Your task to perform on an android device: Open CNN.com Image 0: 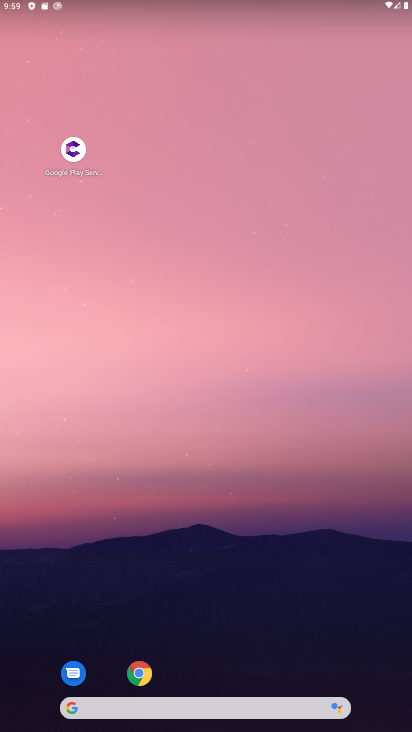
Step 0: click (209, 702)
Your task to perform on an android device: Open CNN.com Image 1: 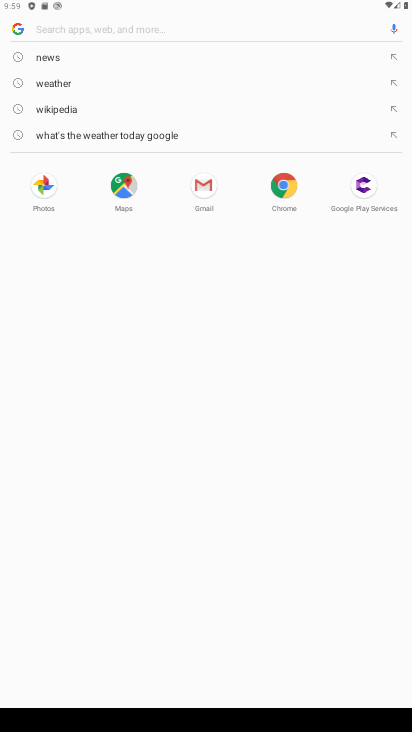
Step 1: type "CNN.com"
Your task to perform on an android device: Open CNN.com Image 2: 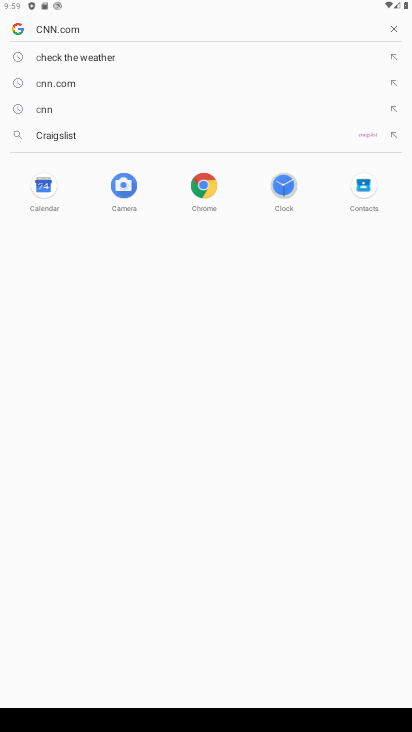
Step 2: press enter
Your task to perform on an android device: Open CNN.com Image 3: 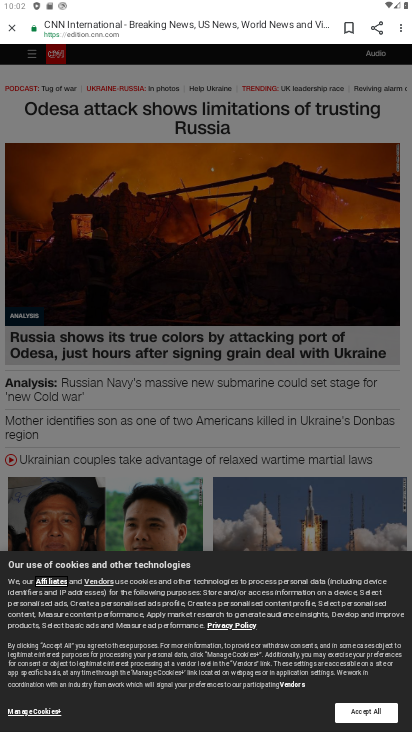
Step 3: press home button
Your task to perform on an android device: Open CNN.com Image 4: 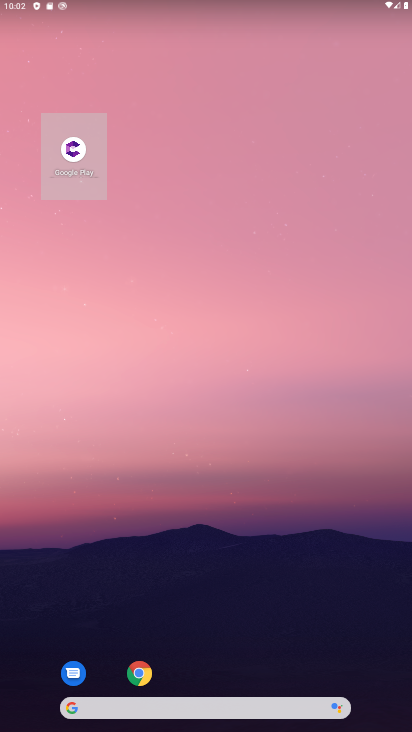
Step 4: click (236, 697)
Your task to perform on an android device: Open CNN.com Image 5: 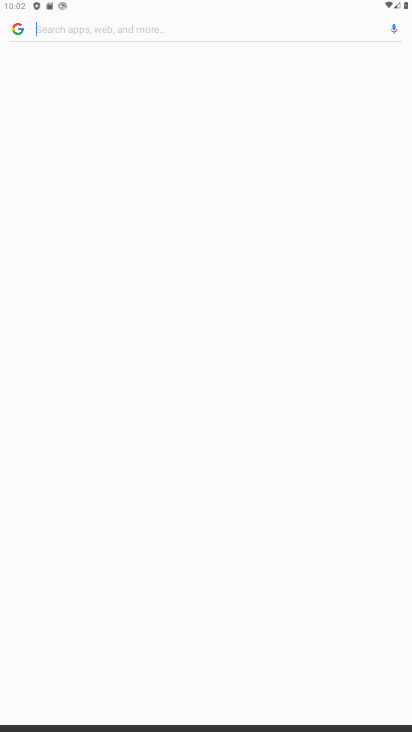
Step 5: click (233, 703)
Your task to perform on an android device: Open CNN.com Image 6: 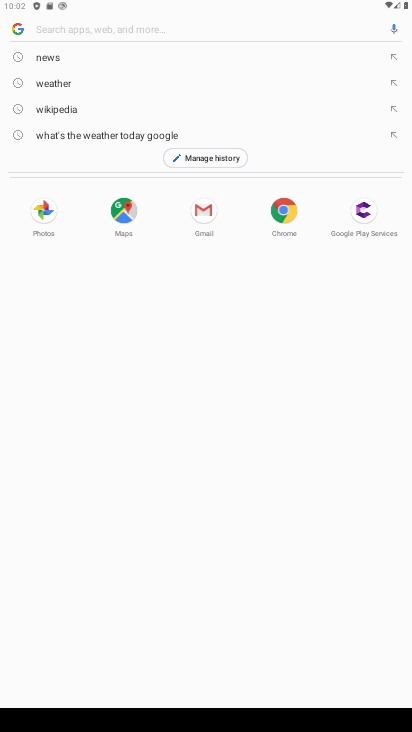
Step 6: type " CNN.com"
Your task to perform on an android device: Open CNN.com Image 7: 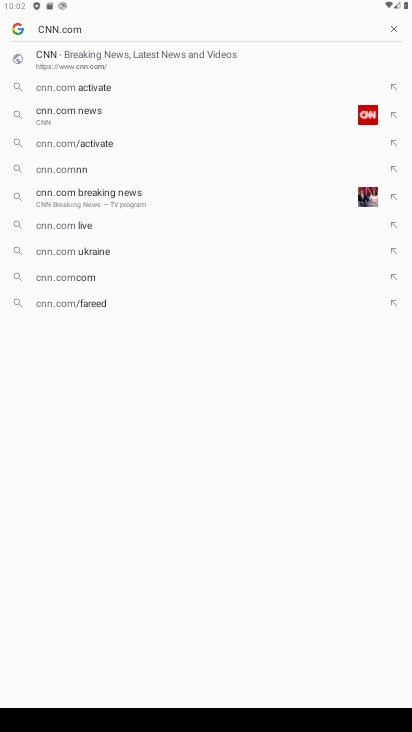
Step 7: press enter
Your task to perform on an android device: Open CNN.com Image 8: 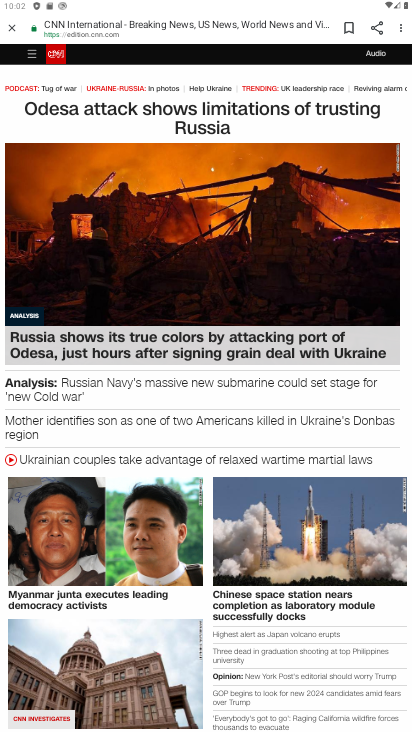
Step 8: task complete